Your task to perform on an android device: move an email to a new category in the gmail app Image 0: 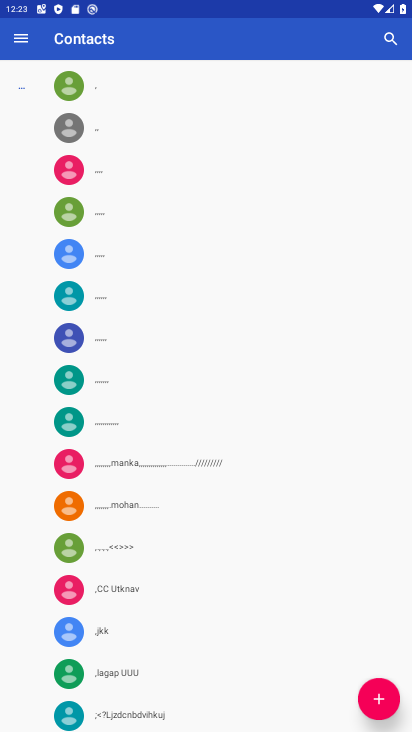
Step 0: press home button
Your task to perform on an android device: move an email to a new category in the gmail app Image 1: 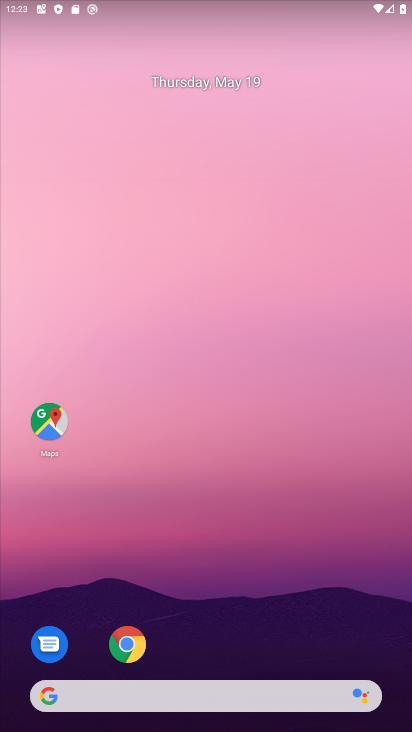
Step 1: drag from (380, 618) to (330, 174)
Your task to perform on an android device: move an email to a new category in the gmail app Image 2: 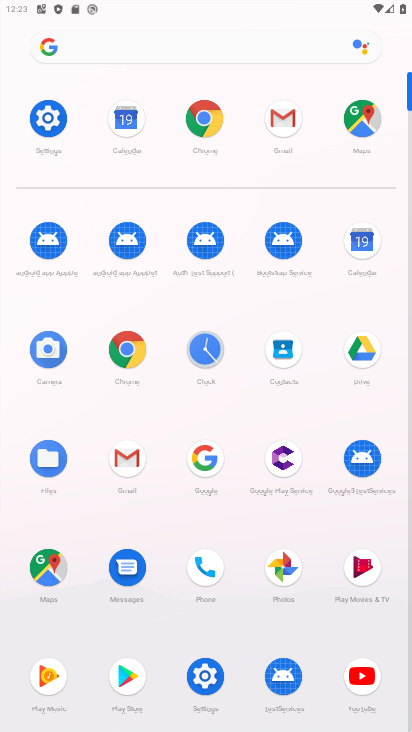
Step 2: click (137, 444)
Your task to perform on an android device: move an email to a new category in the gmail app Image 3: 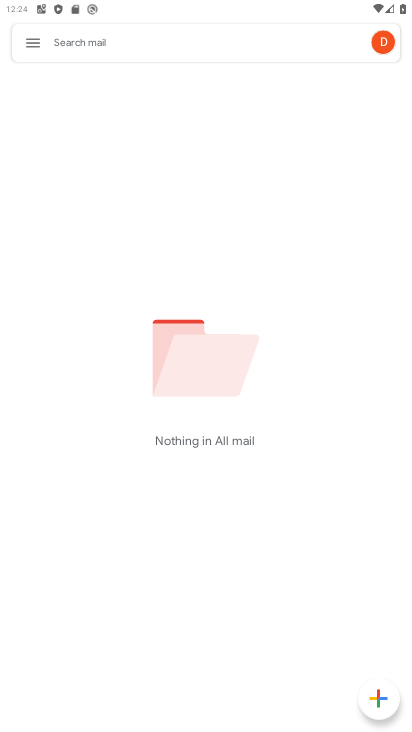
Step 3: click (28, 38)
Your task to perform on an android device: move an email to a new category in the gmail app Image 4: 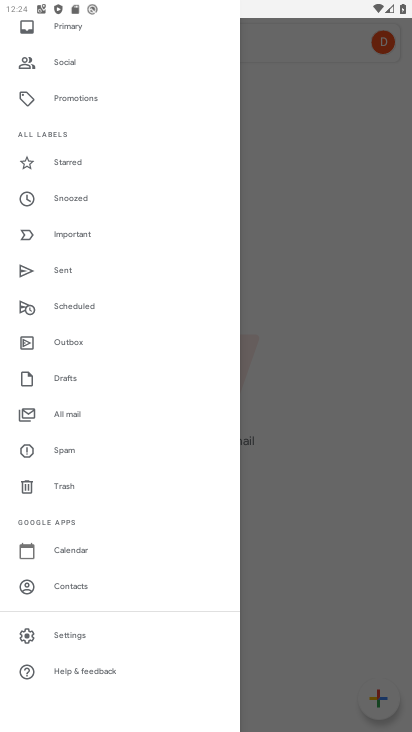
Step 4: click (104, 410)
Your task to perform on an android device: move an email to a new category in the gmail app Image 5: 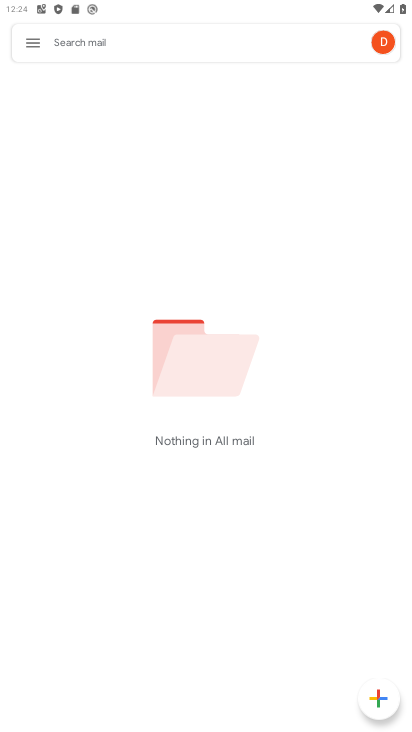
Step 5: task complete